Your task to perform on an android device: turn on improve location accuracy Image 0: 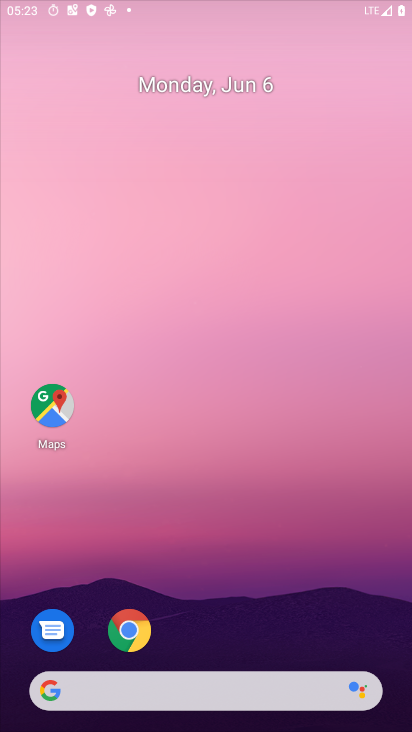
Step 0: drag from (229, 608) to (287, 130)
Your task to perform on an android device: turn on improve location accuracy Image 1: 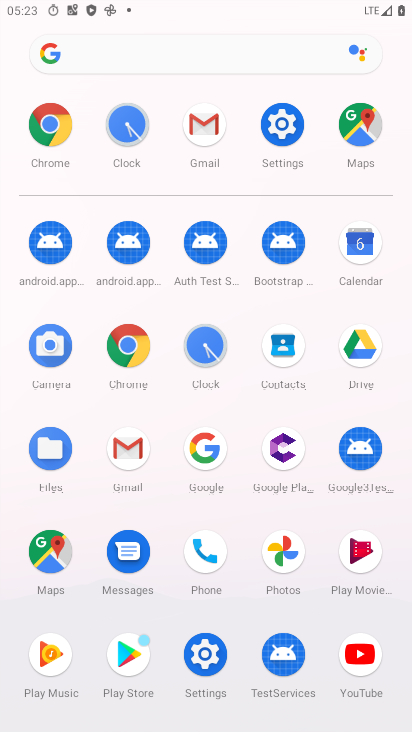
Step 1: click (212, 651)
Your task to perform on an android device: turn on improve location accuracy Image 2: 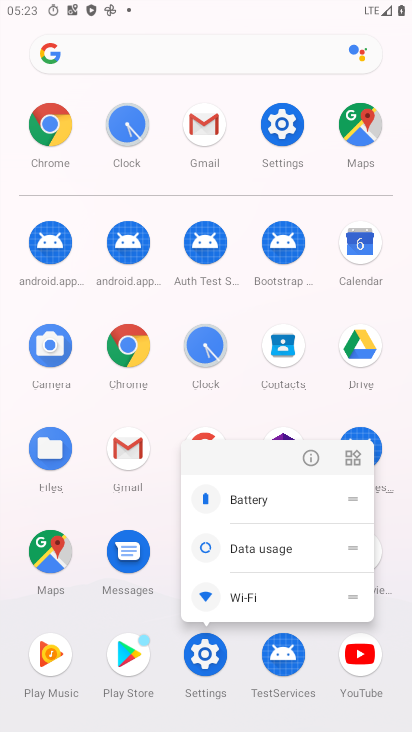
Step 2: click (202, 651)
Your task to perform on an android device: turn on improve location accuracy Image 3: 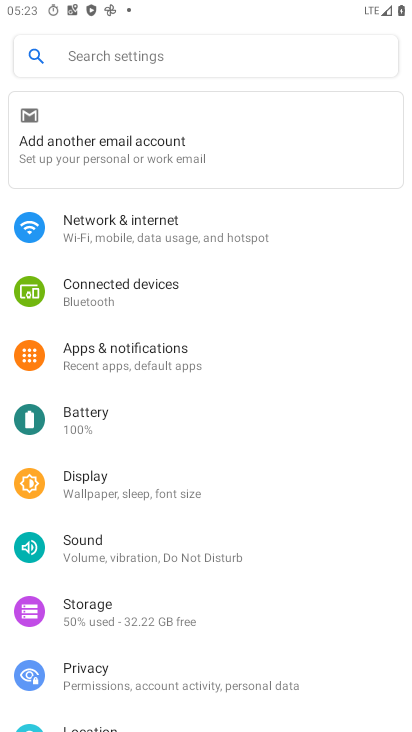
Step 3: drag from (137, 612) to (176, 354)
Your task to perform on an android device: turn on improve location accuracy Image 4: 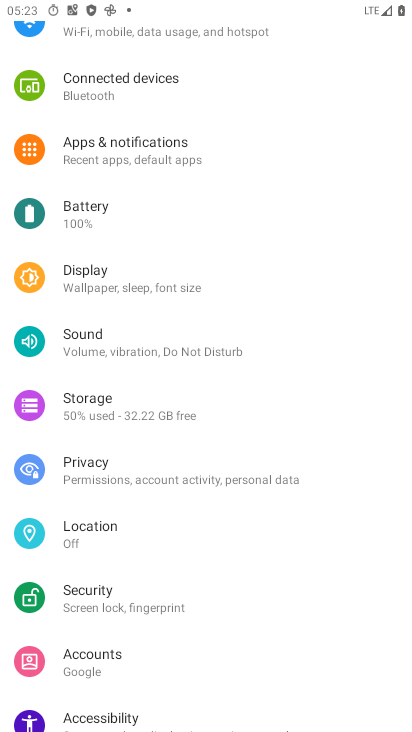
Step 4: click (85, 531)
Your task to perform on an android device: turn on improve location accuracy Image 5: 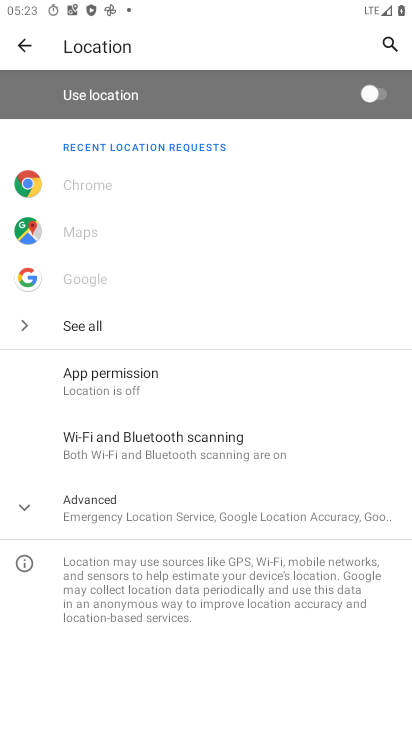
Step 5: click (165, 513)
Your task to perform on an android device: turn on improve location accuracy Image 6: 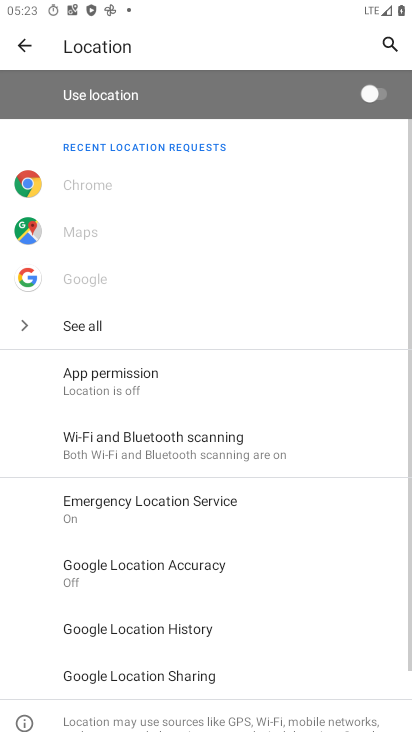
Step 6: drag from (226, 650) to (312, 337)
Your task to perform on an android device: turn on improve location accuracy Image 7: 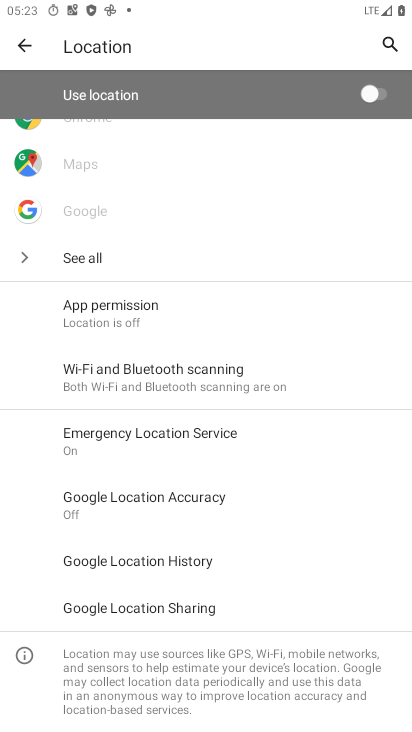
Step 7: click (141, 493)
Your task to perform on an android device: turn on improve location accuracy Image 8: 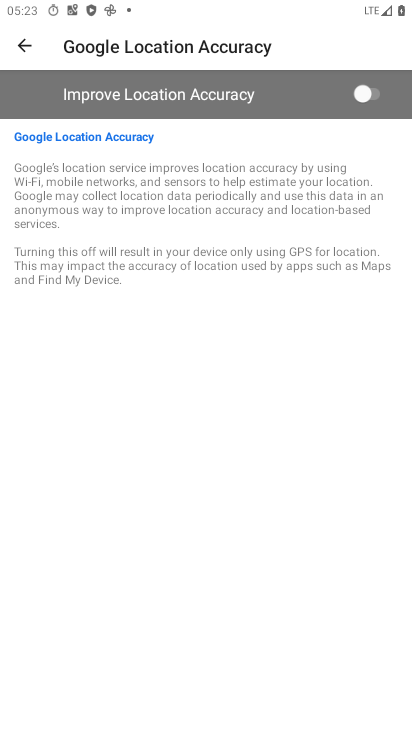
Step 8: click (370, 89)
Your task to perform on an android device: turn on improve location accuracy Image 9: 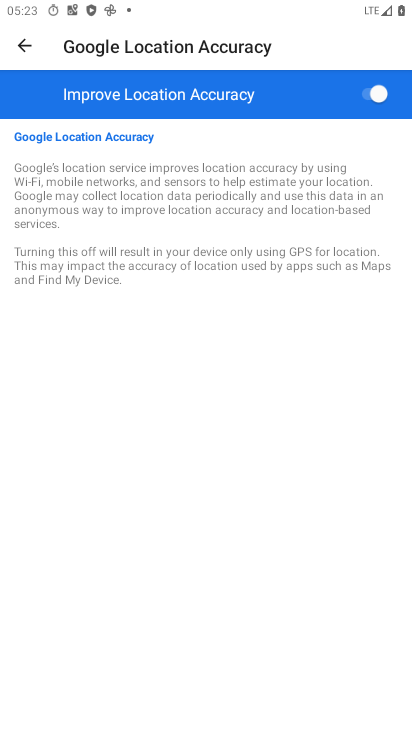
Step 9: task complete